Your task to perform on an android device: move an email to a new category in the gmail app Image 0: 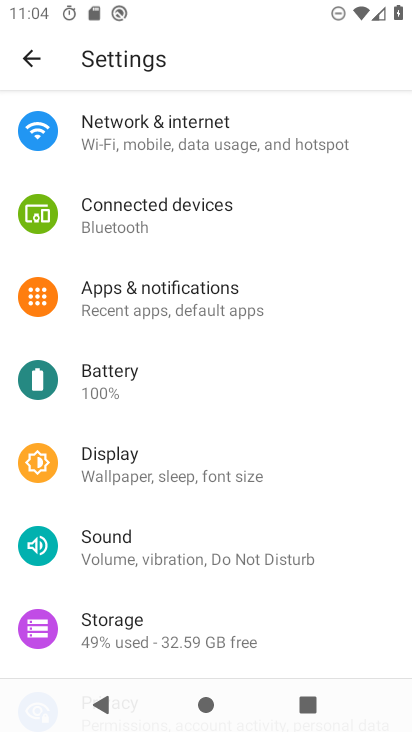
Step 0: press home button
Your task to perform on an android device: move an email to a new category in the gmail app Image 1: 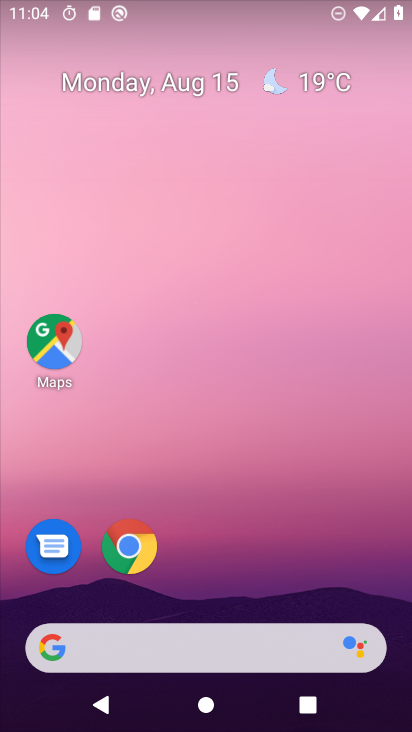
Step 1: drag from (239, 606) to (238, 105)
Your task to perform on an android device: move an email to a new category in the gmail app Image 2: 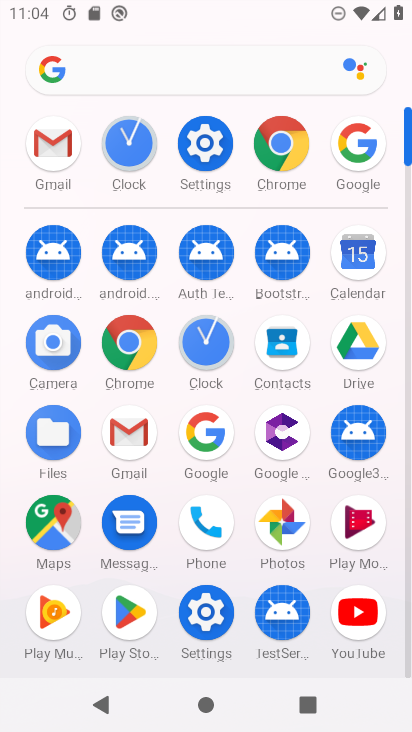
Step 2: click (132, 432)
Your task to perform on an android device: move an email to a new category in the gmail app Image 3: 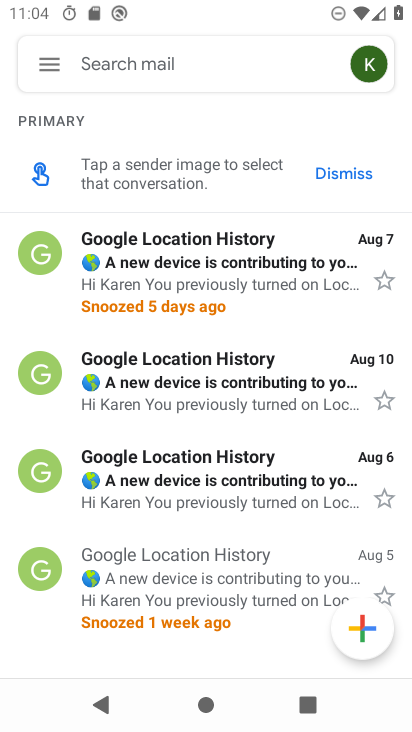
Step 3: click (191, 255)
Your task to perform on an android device: move an email to a new category in the gmail app Image 4: 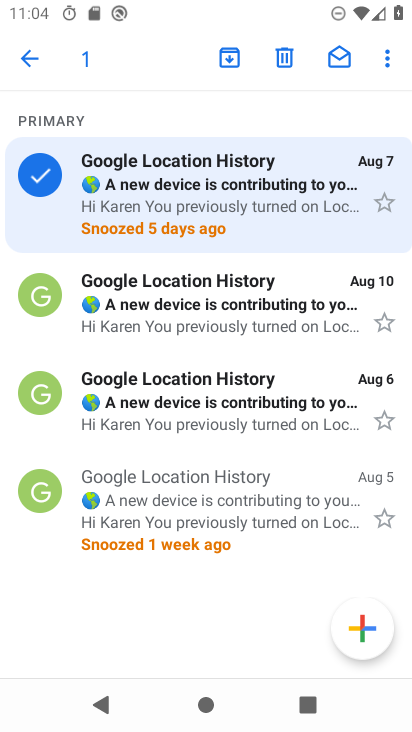
Step 4: click (388, 54)
Your task to perform on an android device: move an email to a new category in the gmail app Image 5: 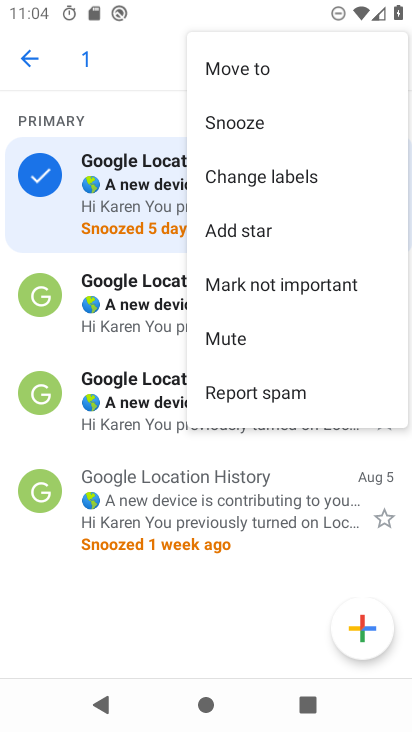
Step 5: click (240, 67)
Your task to perform on an android device: move an email to a new category in the gmail app Image 6: 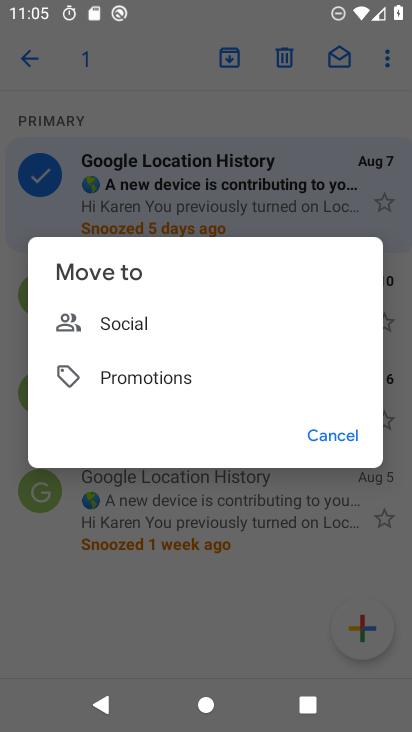
Step 6: click (115, 320)
Your task to perform on an android device: move an email to a new category in the gmail app Image 7: 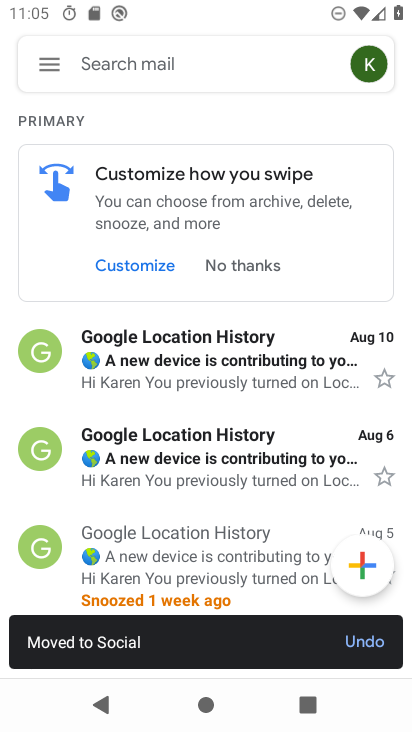
Step 7: task complete